Your task to perform on an android device: turn on data saver in the chrome app Image 0: 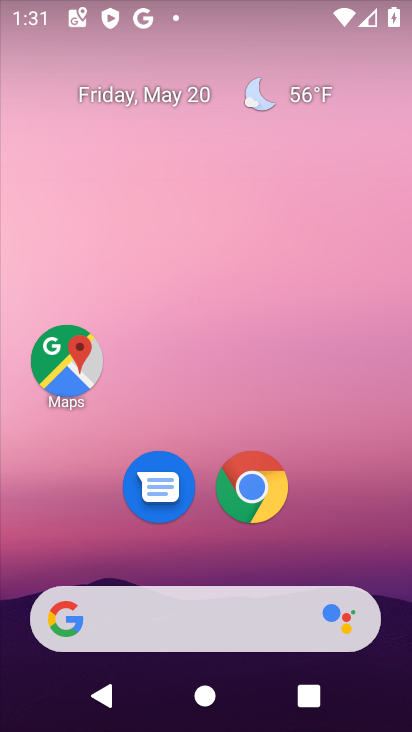
Step 0: press home button
Your task to perform on an android device: turn on data saver in the chrome app Image 1: 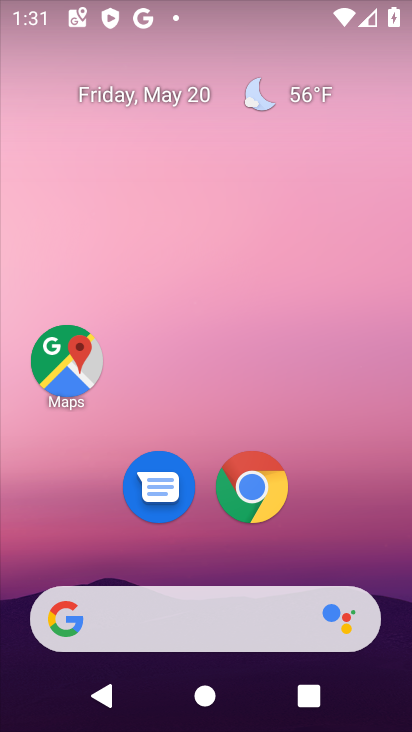
Step 1: click (250, 479)
Your task to perform on an android device: turn on data saver in the chrome app Image 2: 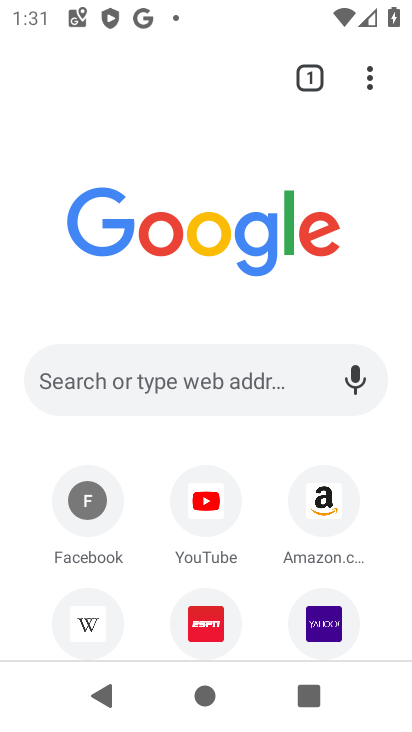
Step 2: click (367, 65)
Your task to perform on an android device: turn on data saver in the chrome app Image 3: 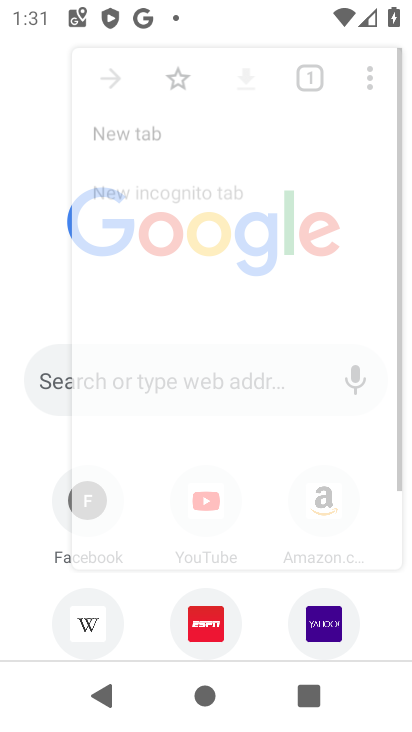
Step 3: click (370, 73)
Your task to perform on an android device: turn on data saver in the chrome app Image 4: 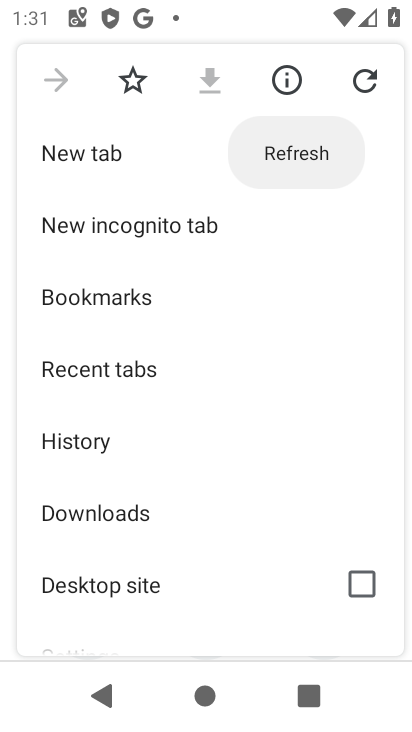
Step 4: drag from (194, 587) to (197, 140)
Your task to perform on an android device: turn on data saver in the chrome app Image 5: 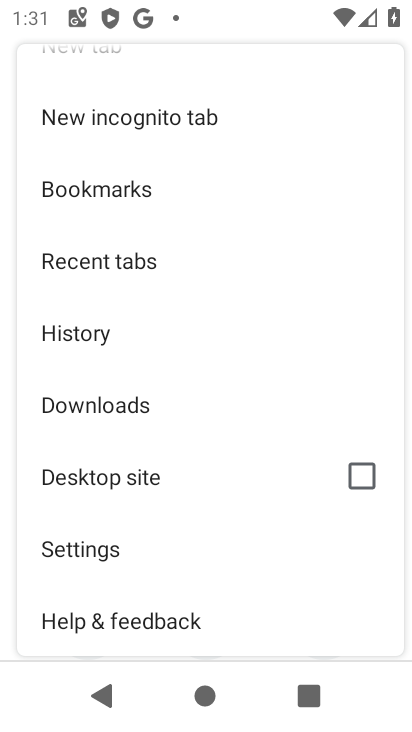
Step 5: click (138, 543)
Your task to perform on an android device: turn on data saver in the chrome app Image 6: 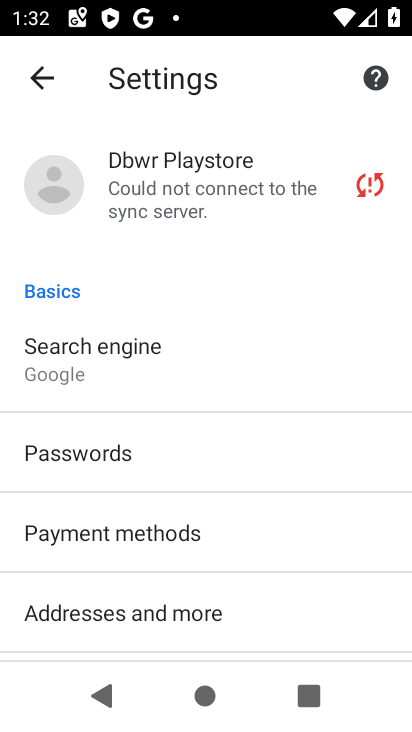
Step 6: drag from (242, 610) to (262, 105)
Your task to perform on an android device: turn on data saver in the chrome app Image 7: 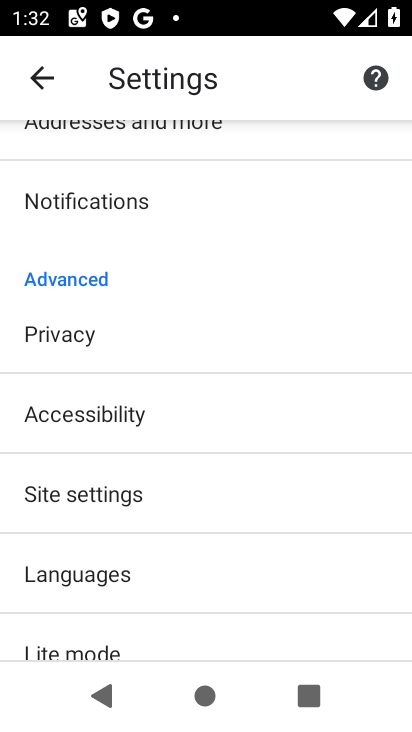
Step 7: drag from (162, 564) to (163, 82)
Your task to perform on an android device: turn on data saver in the chrome app Image 8: 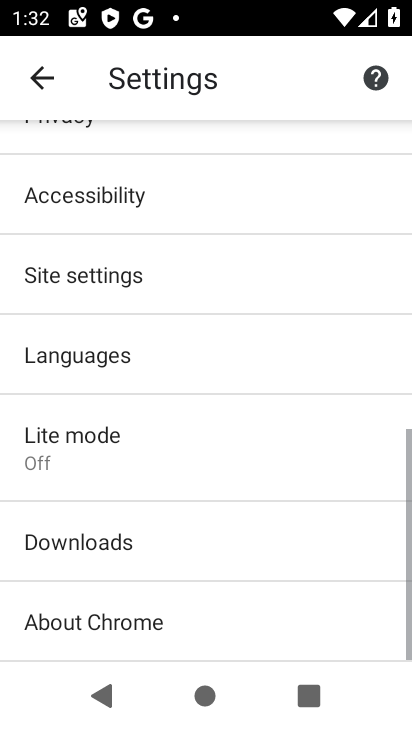
Step 8: click (92, 456)
Your task to perform on an android device: turn on data saver in the chrome app Image 9: 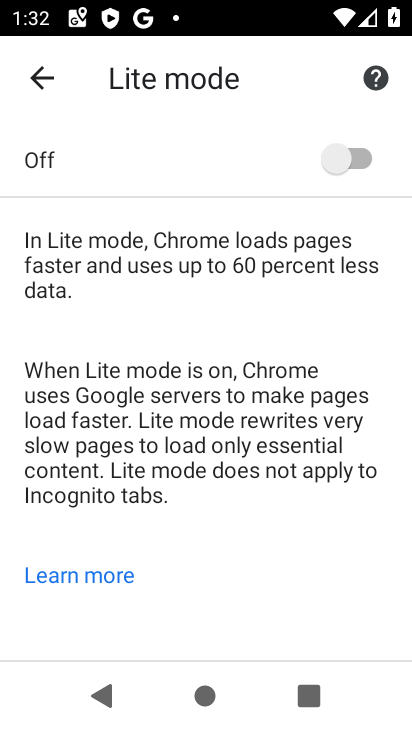
Step 9: click (358, 155)
Your task to perform on an android device: turn on data saver in the chrome app Image 10: 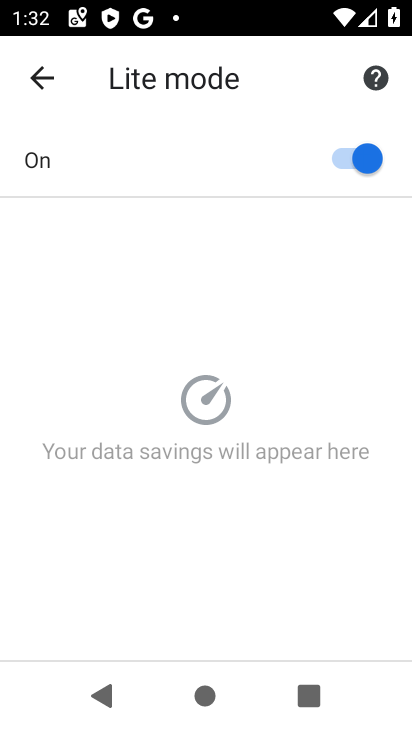
Step 10: task complete